Your task to perform on an android device: turn vacation reply on in the gmail app Image 0: 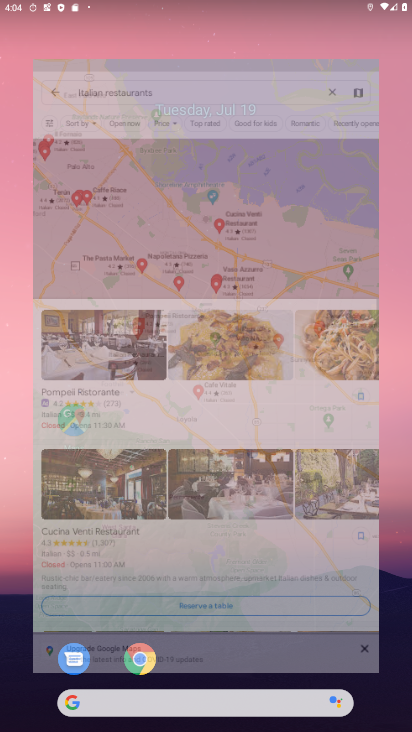
Step 0: drag from (325, 558) to (346, 3)
Your task to perform on an android device: turn vacation reply on in the gmail app Image 1: 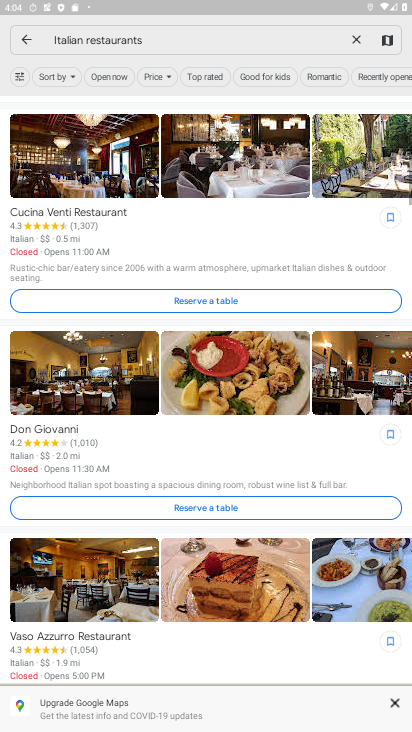
Step 1: press home button
Your task to perform on an android device: turn vacation reply on in the gmail app Image 2: 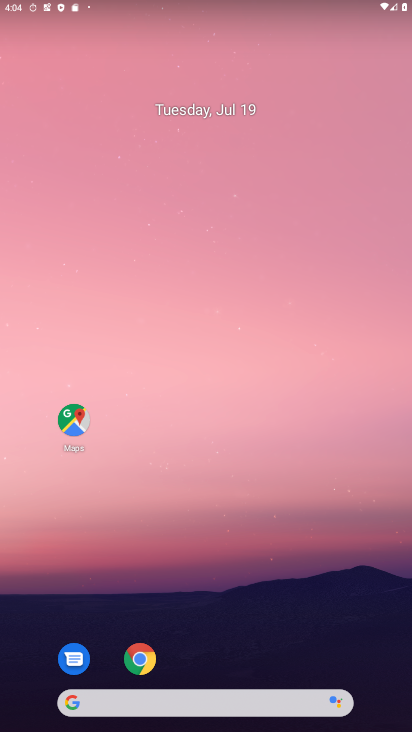
Step 2: drag from (292, 537) to (327, 15)
Your task to perform on an android device: turn vacation reply on in the gmail app Image 3: 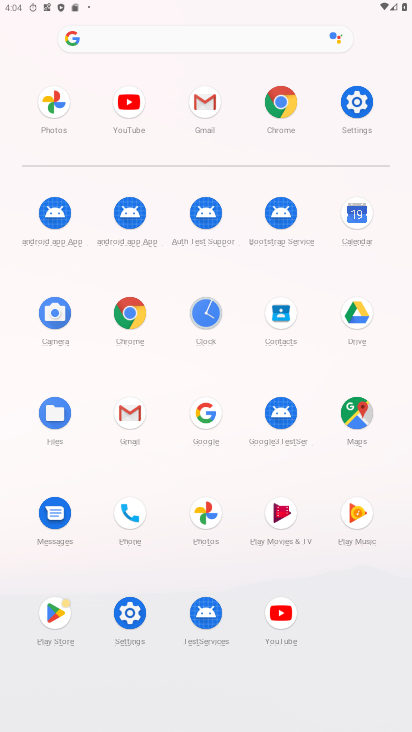
Step 3: click (221, 101)
Your task to perform on an android device: turn vacation reply on in the gmail app Image 4: 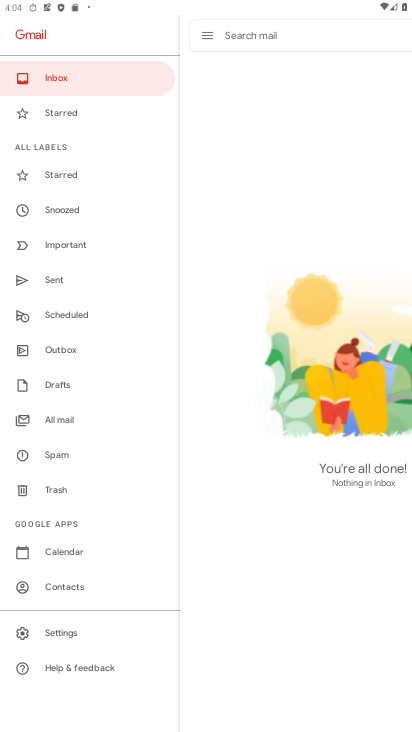
Step 4: click (44, 628)
Your task to perform on an android device: turn vacation reply on in the gmail app Image 5: 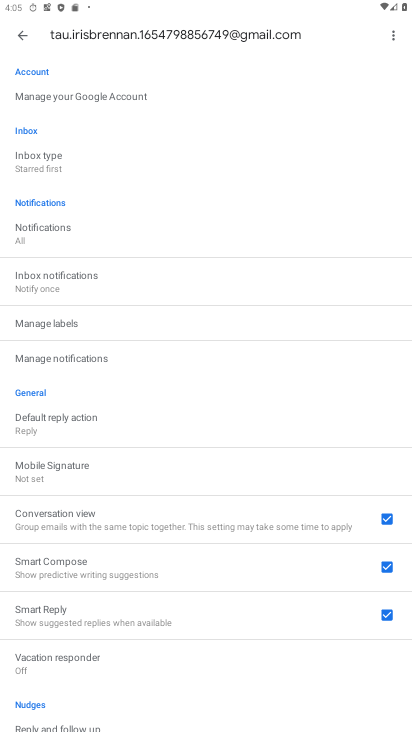
Step 5: drag from (128, 508) to (204, 120)
Your task to perform on an android device: turn vacation reply on in the gmail app Image 6: 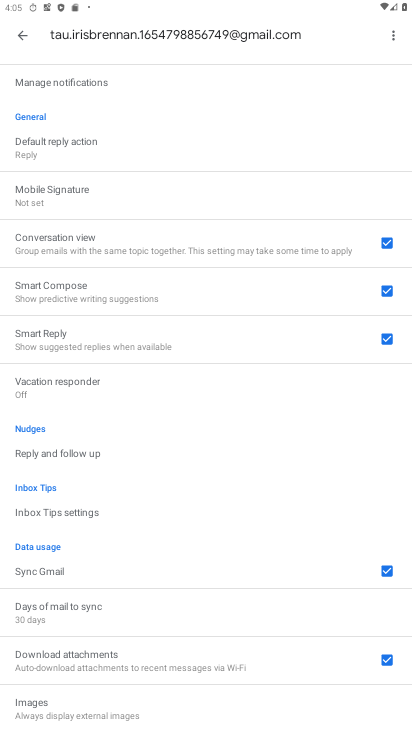
Step 6: click (91, 386)
Your task to perform on an android device: turn vacation reply on in the gmail app Image 7: 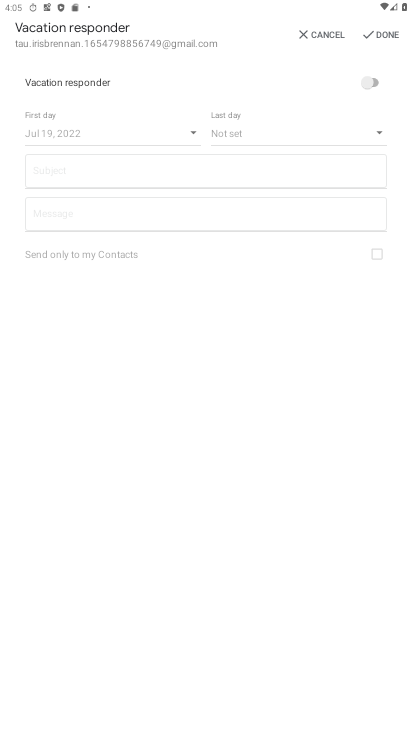
Step 7: click (372, 91)
Your task to perform on an android device: turn vacation reply on in the gmail app Image 8: 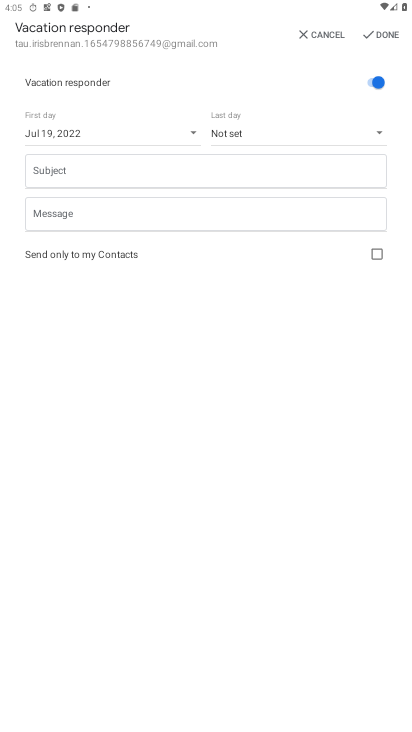
Step 8: task complete